Your task to perform on an android device: turn on javascript in the chrome app Image 0: 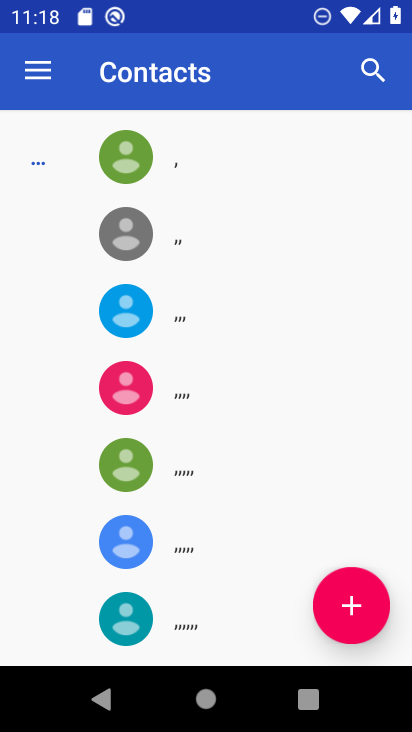
Step 0: press home button
Your task to perform on an android device: turn on javascript in the chrome app Image 1: 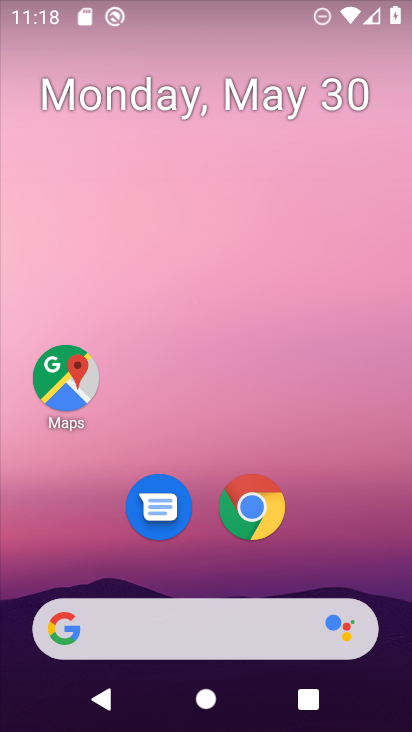
Step 1: drag from (352, 482) to (270, 64)
Your task to perform on an android device: turn on javascript in the chrome app Image 2: 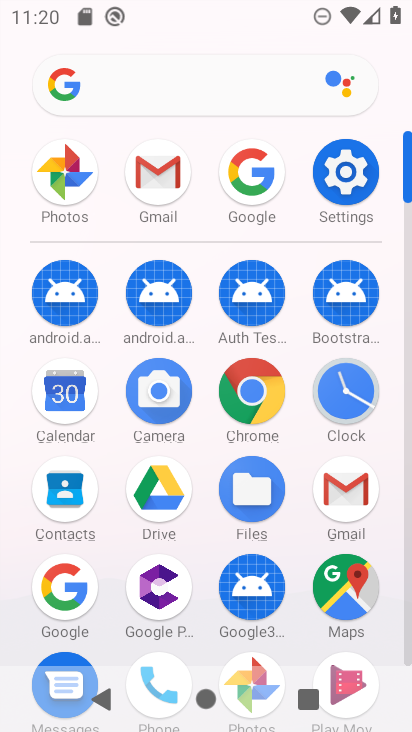
Step 2: click (258, 410)
Your task to perform on an android device: turn on javascript in the chrome app Image 3: 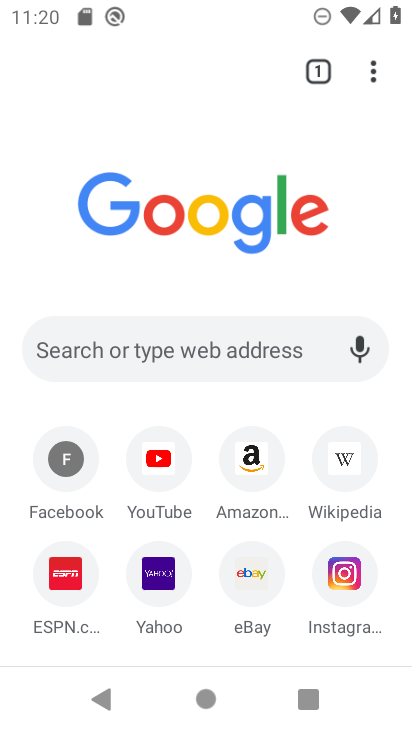
Step 3: click (371, 72)
Your task to perform on an android device: turn on javascript in the chrome app Image 4: 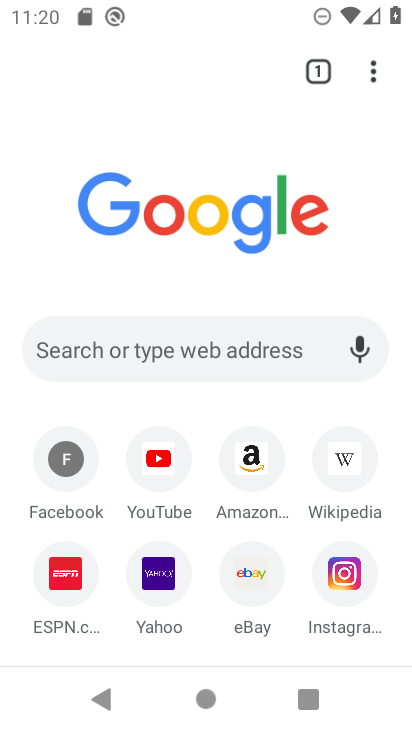
Step 4: click (371, 72)
Your task to perform on an android device: turn on javascript in the chrome app Image 5: 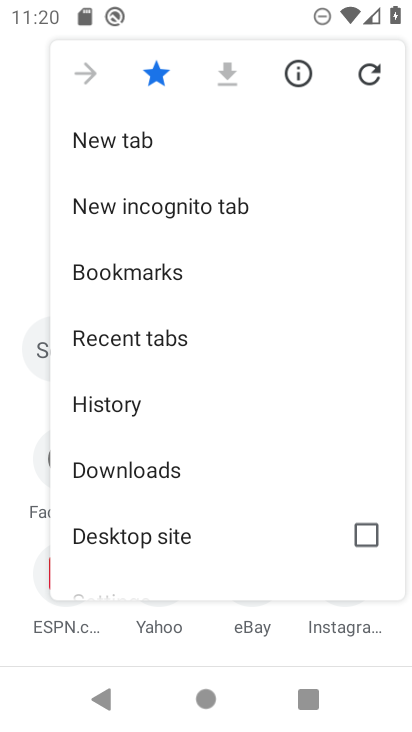
Step 5: drag from (186, 520) to (196, 196)
Your task to perform on an android device: turn on javascript in the chrome app Image 6: 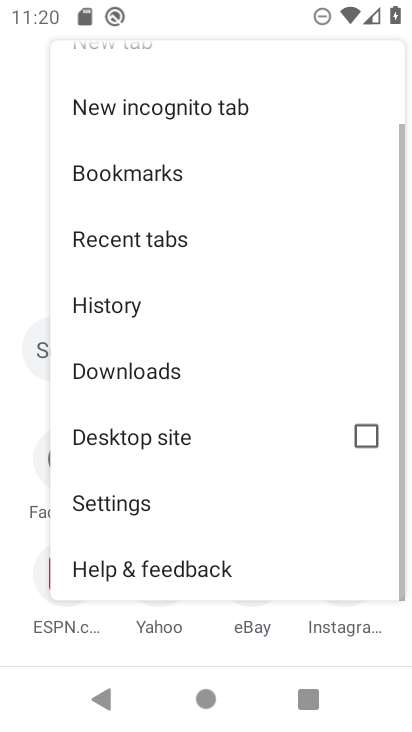
Step 6: click (124, 509)
Your task to perform on an android device: turn on javascript in the chrome app Image 7: 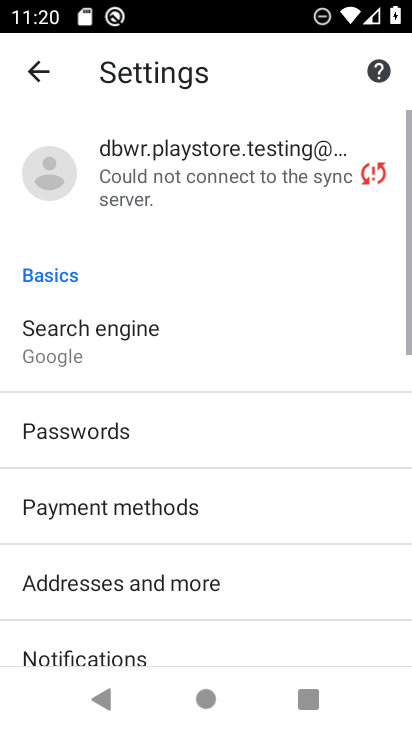
Step 7: drag from (135, 602) to (208, 212)
Your task to perform on an android device: turn on javascript in the chrome app Image 8: 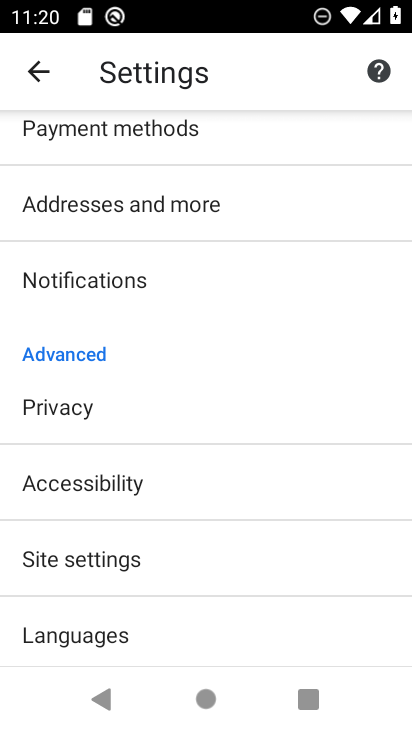
Step 8: click (125, 565)
Your task to perform on an android device: turn on javascript in the chrome app Image 9: 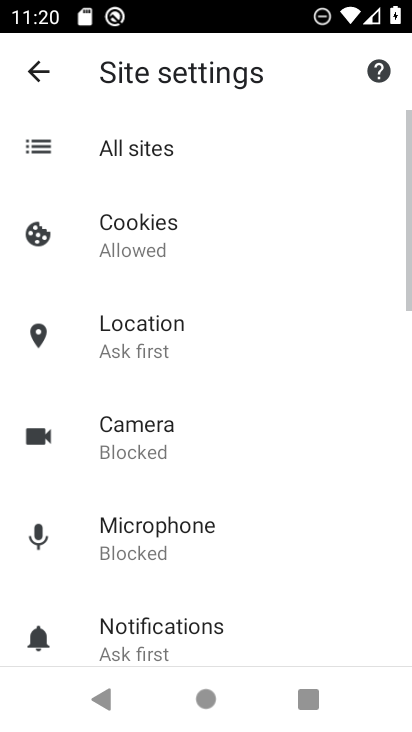
Step 9: drag from (155, 592) to (209, 108)
Your task to perform on an android device: turn on javascript in the chrome app Image 10: 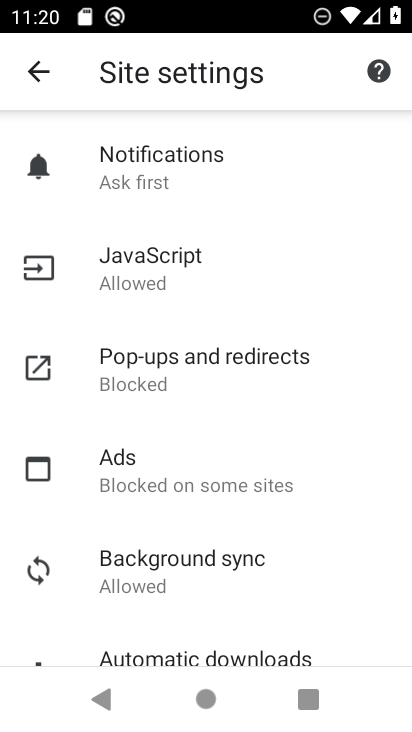
Step 10: click (176, 287)
Your task to perform on an android device: turn on javascript in the chrome app Image 11: 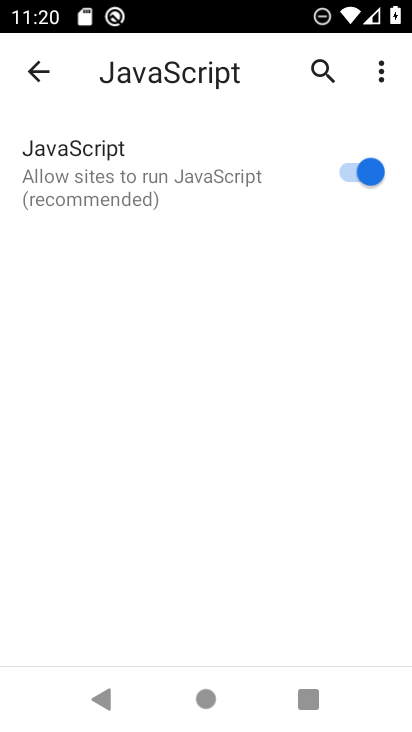
Step 11: task complete